Your task to perform on an android device: Open Yahoo.com Image 0: 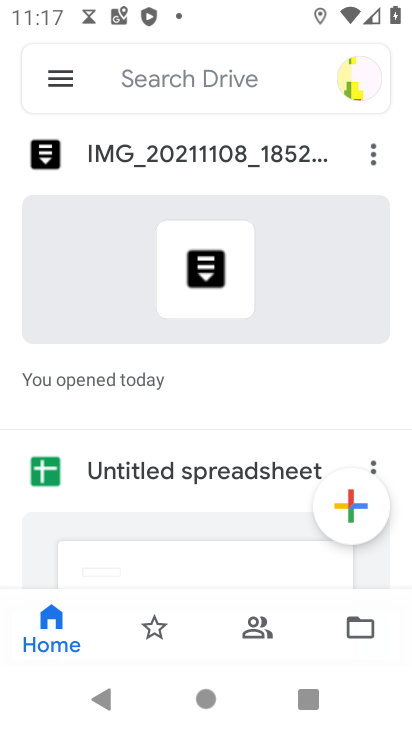
Step 0: press home button
Your task to perform on an android device: Open Yahoo.com Image 1: 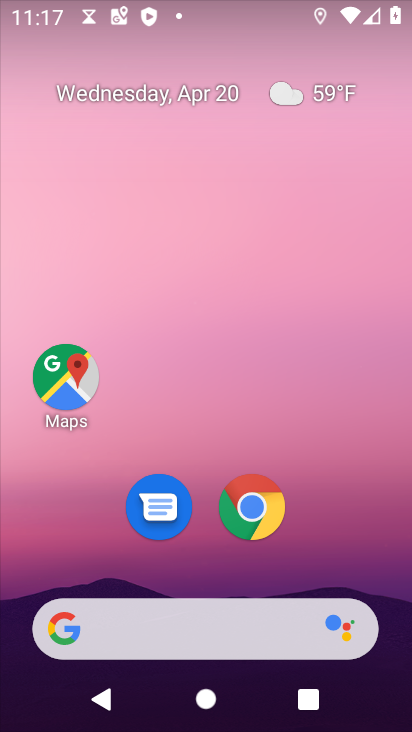
Step 1: drag from (267, 670) to (172, 105)
Your task to perform on an android device: Open Yahoo.com Image 2: 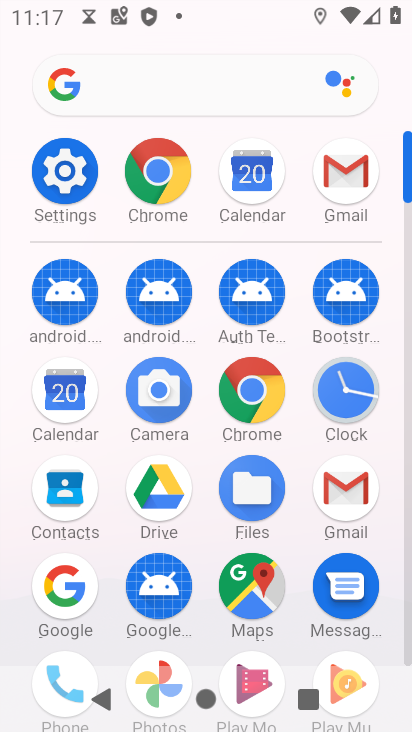
Step 2: click (258, 383)
Your task to perform on an android device: Open Yahoo.com Image 3: 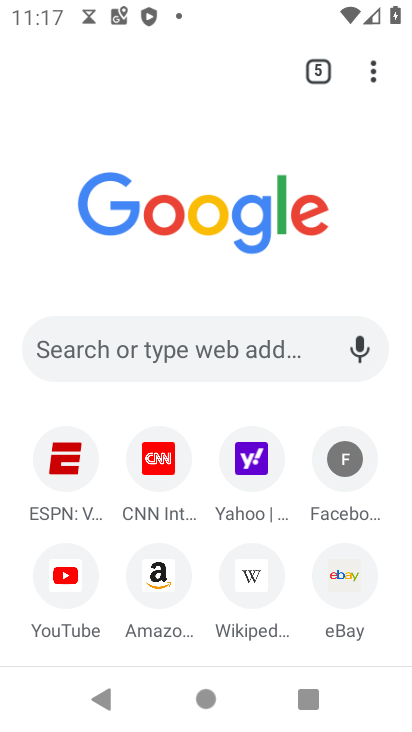
Step 3: click (246, 466)
Your task to perform on an android device: Open Yahoo.com Image 4: 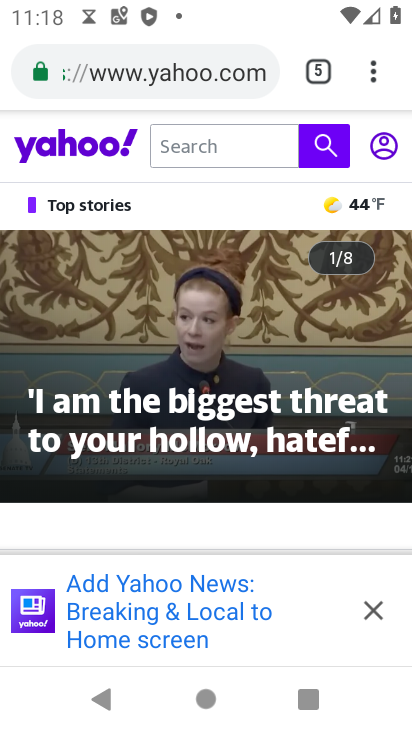
Step 4: task complete